Your task to perform on an android device: Go to privacy settings Image 0: 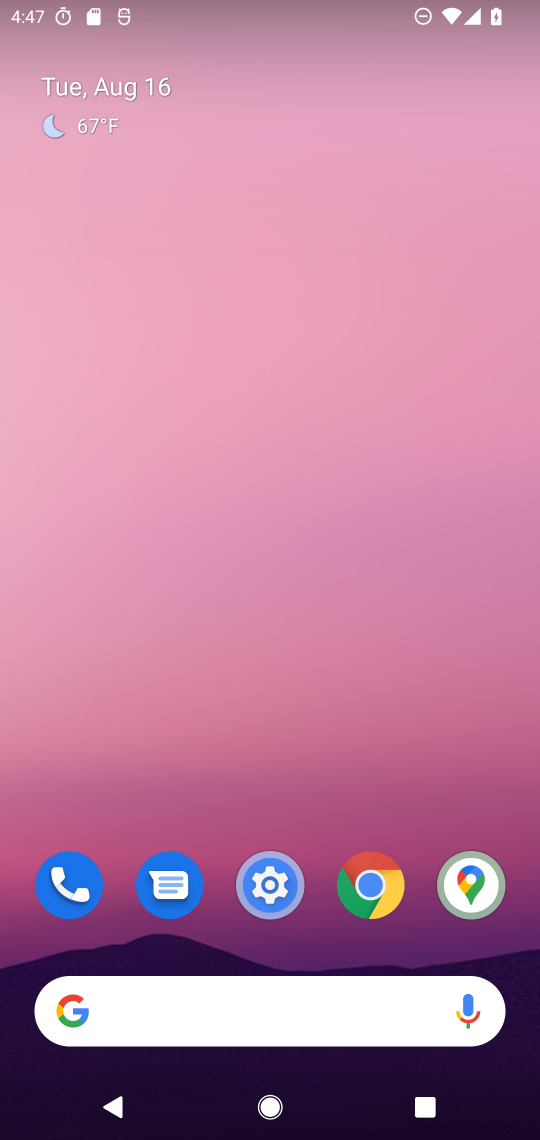
Step 0: drag from (230, 654) to (252, 194)
Your task to perform on an android device: Go to privacy settings Image 1: 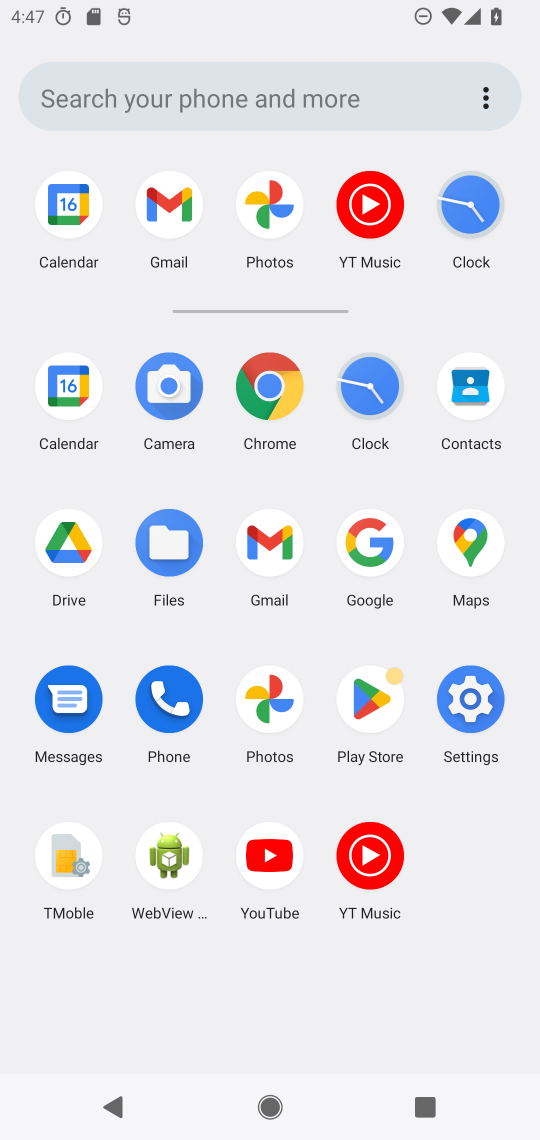
Step 1: click (470, 685)
Your task to perform on an android device: Go to privacy settings Image 2: 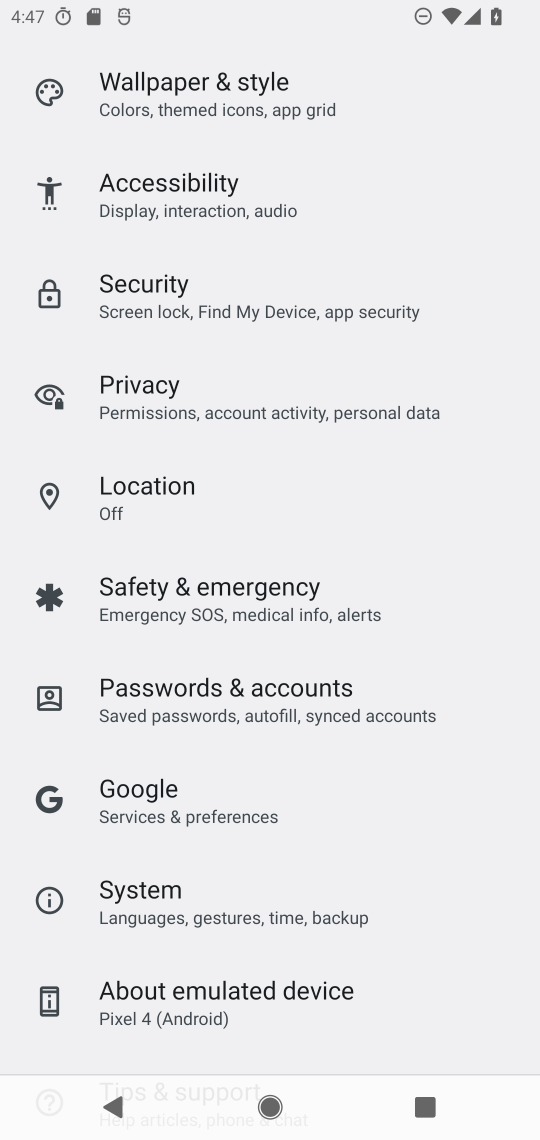
Step 2: click (192, 389)
Your task to perform on an android device: Go to privacy settings Image 3: 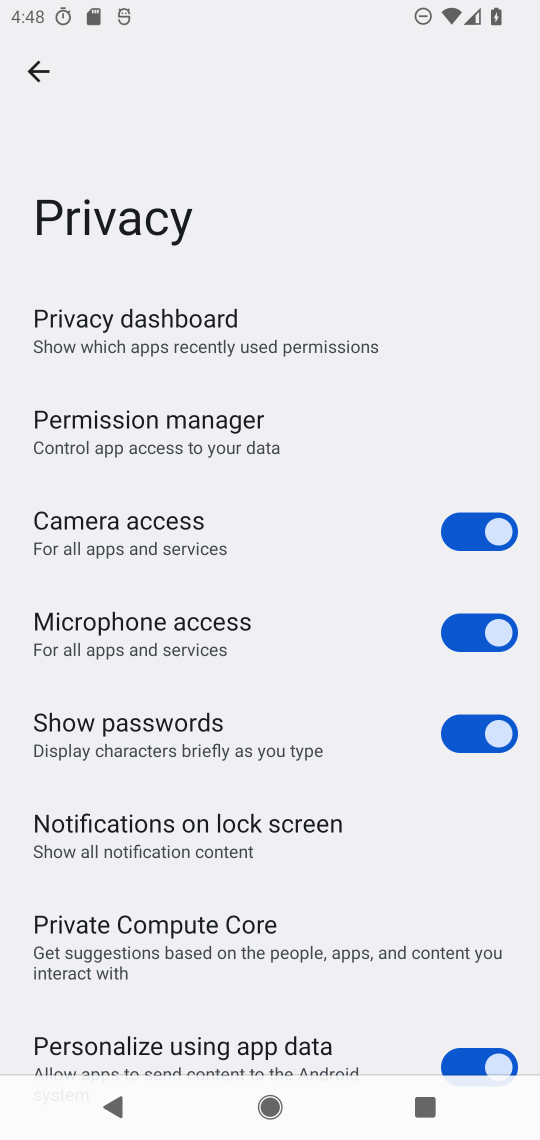
Step 3: task complete